Your task to perform on an android device: search for starred emails in the gmail app Image 0: 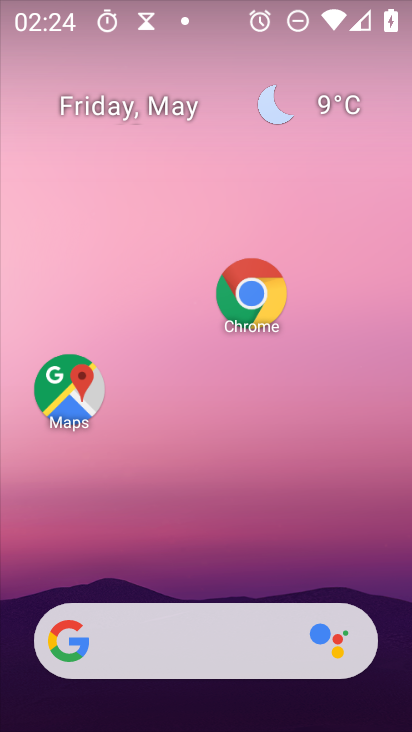
Step 0: drag from (197, 638) to (374, 265)
Your task to perform on an android device: search for starred emails in the gmail app Image 1: 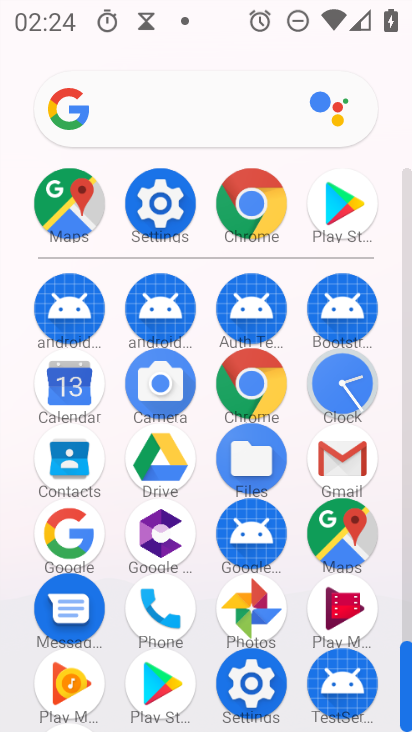
Step 1: click (350, 465)
Your task to perform on an android device: search for starred emails in the gmail app Image 2: 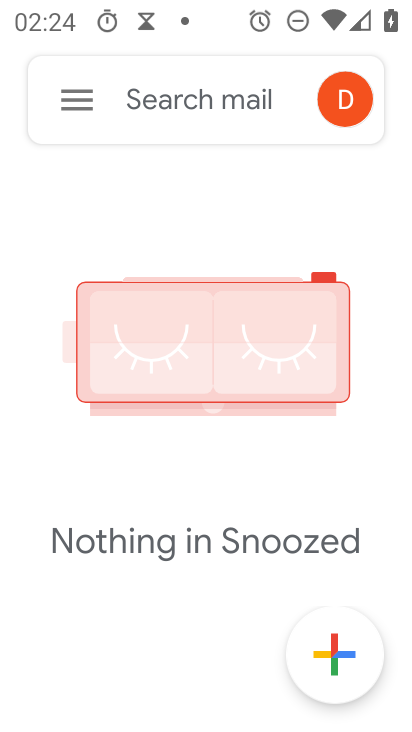
Step 2: click (79, 110)
Your task to perform on an android device: search for starred emails in the gmail app Image 3: 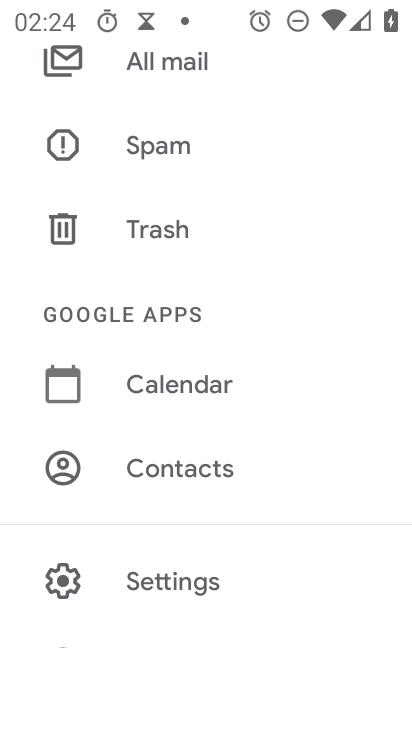
Step 3: drag from (246, 124) to (160, 609)
Your task to perform on an android device: search for starred emails in the gmail app Image 4: 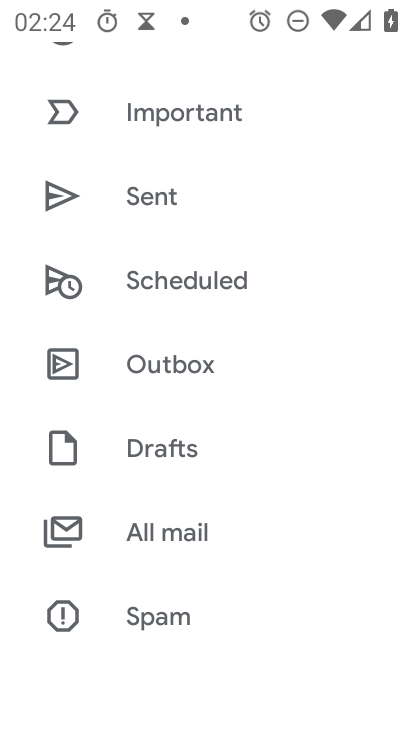
Step 4: drag from (256, 189) to (231, 712)
Your task to perform on an android device: search for starred emails in the gmail app Image 5: 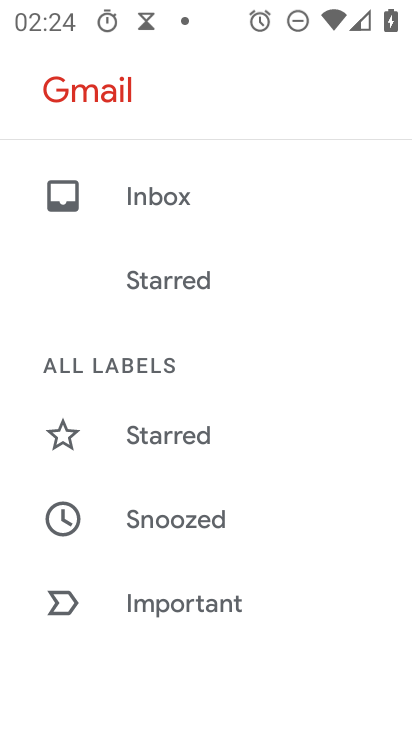
Step 5: click (178, 441)
Your task to perform on an android device: search for starred emails in the gmail app Image 6: 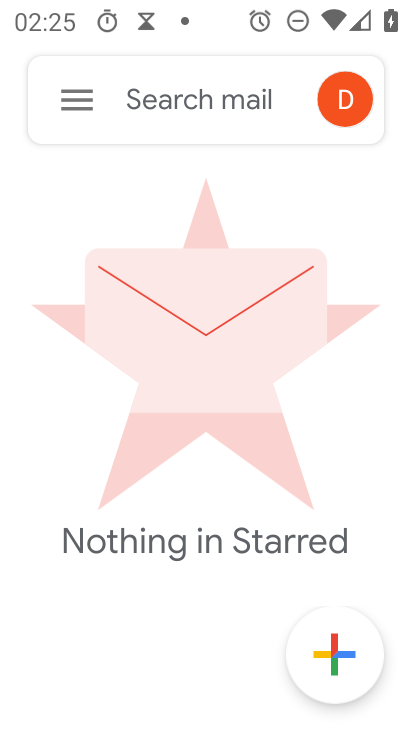
Step 6: task complete